Your task to perform on an android device: Search for seafood restaurants on Google Maps Image 0: 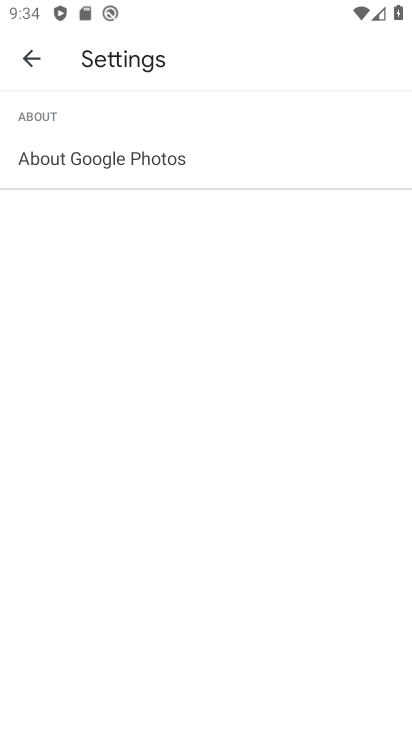
Step 0: press home button
Your task to perform on an android device: Search for seafood restaurants on Google Maps Image 1: 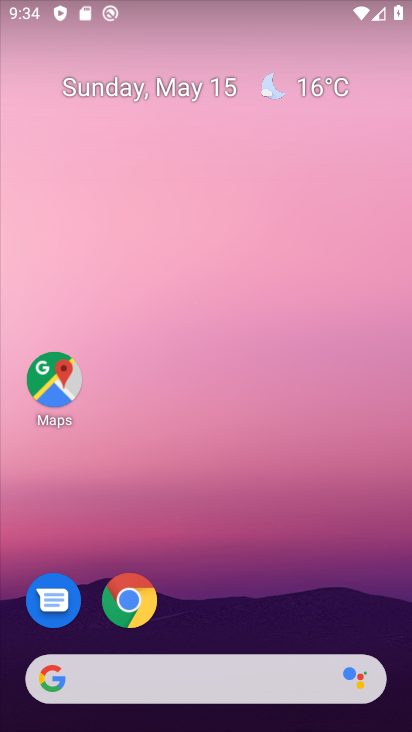
Step 1: drag from (220, 644) to (140, 117)
Your task to perform on an android device: Search for seafood restaurants on Google Maps Image 2: 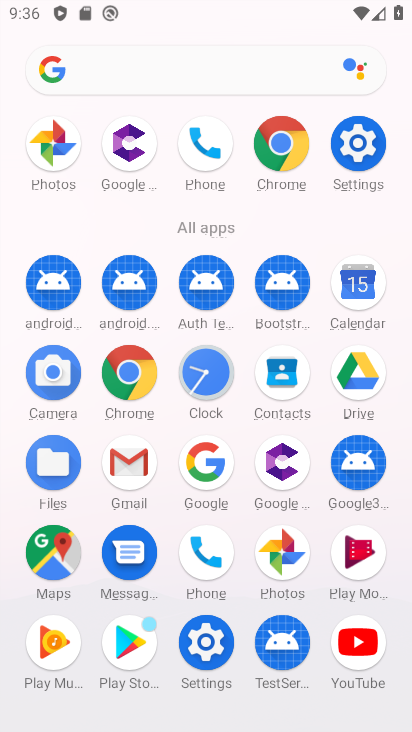
Step 2: click (48, 542)
Your task to perform on an android device: Search for seafood restaurants on Google Maps Image 3: 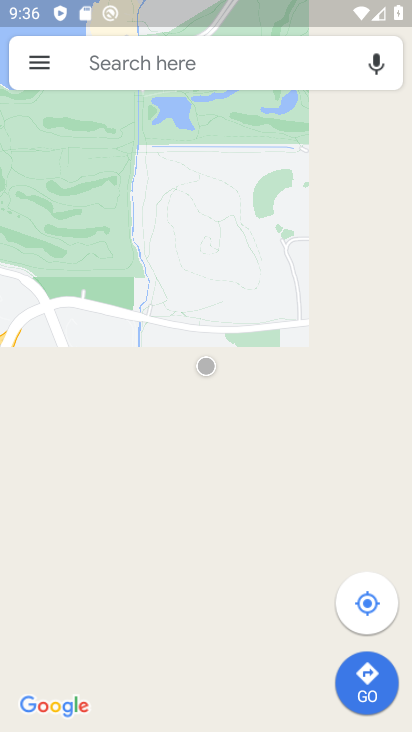
Step 3: click (185, 77)
Your task to perform on an android device: Search for seafood restaurants on Google Maps Image 4: 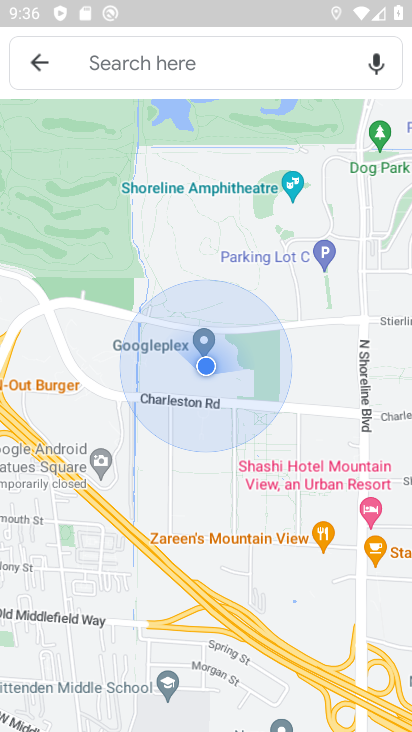
Step 4: click (223, 58)
Your task to perform on an android device: Search for seafood restaurants on Google Maps Image 5: 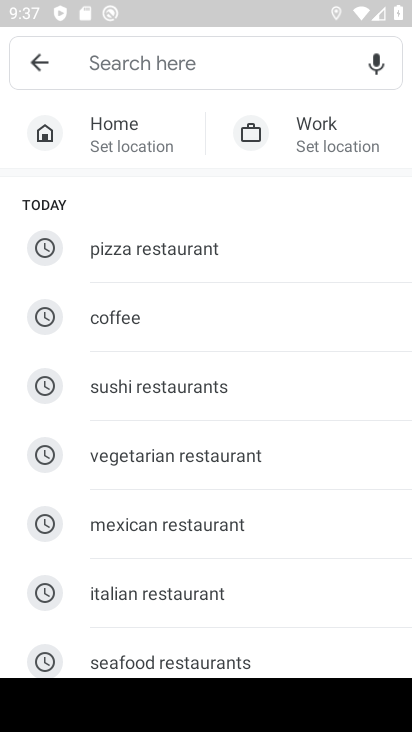
Step 5: click (156, 652)
Your task to perform on an android device: Search for seafood restaurants on Google Maps Image 6: 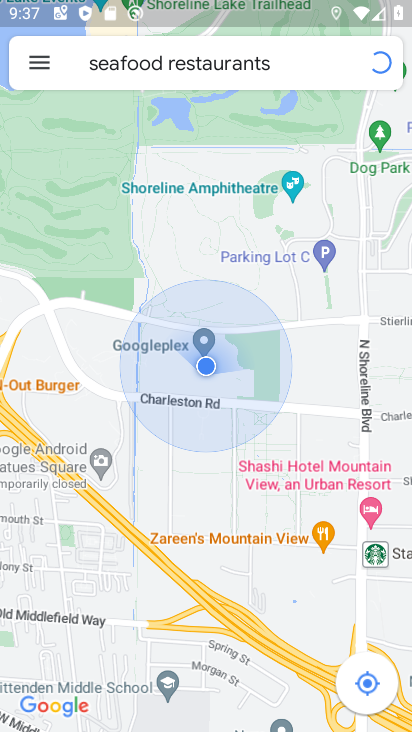
Step 6: task complete